Your task to perform on an android device: Go to eBay Image 0: 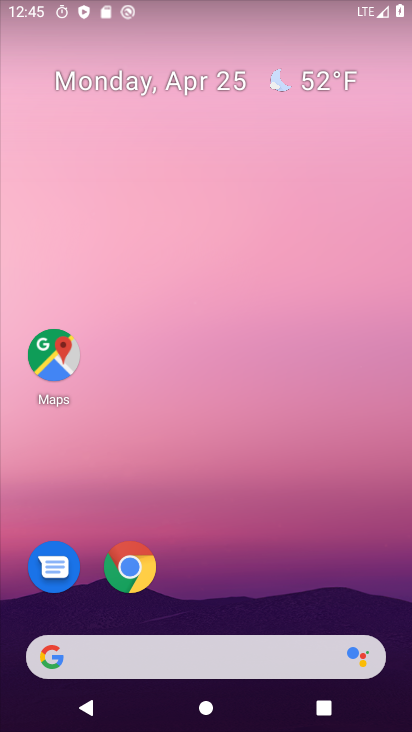
Step 0: click (277, 662)
Your task to perform on an android device: Go to eBay Image 1: 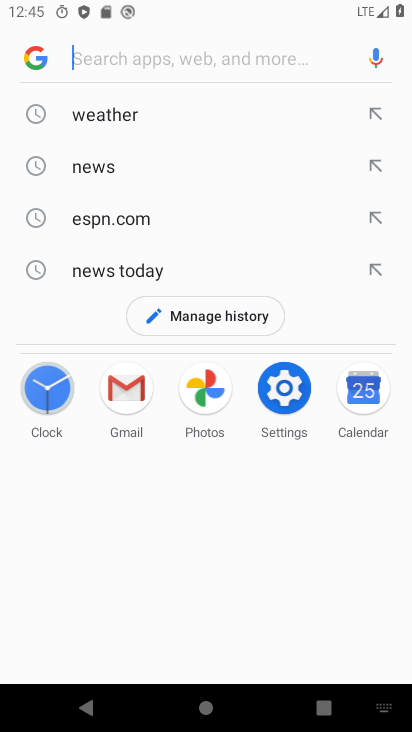
Step 1: type "ebay"
Your task to perform on an android device: Go to eBay Image 2: 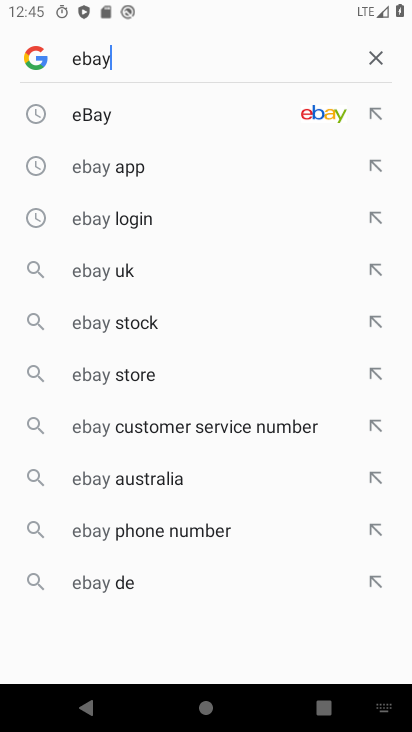
Step 2: click (323, 111)
Your task to perform on an android device: Go to eBay Image 3: 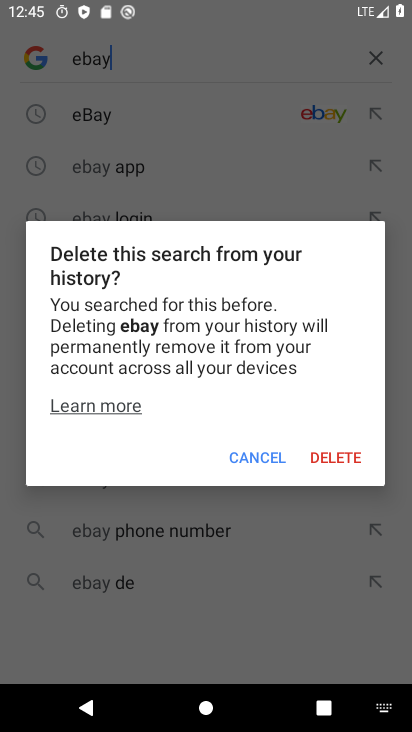
Step 3: click (262, 448)
Your task to perform on an android device: Go to eBay Image 4: 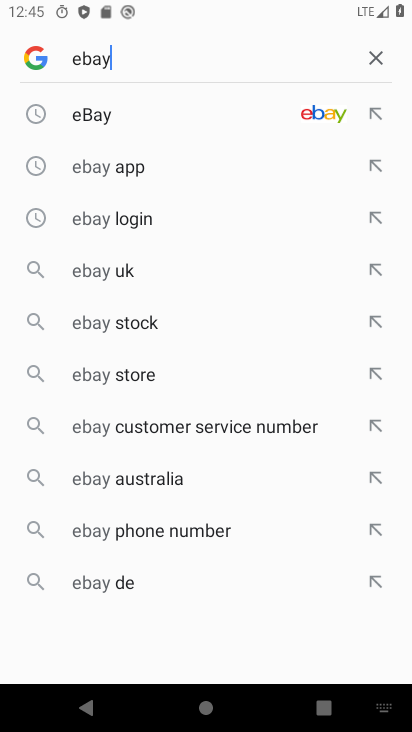
Step 4: click (319, 110)
Your task to perform on an android device: Go to eBay Image 5: 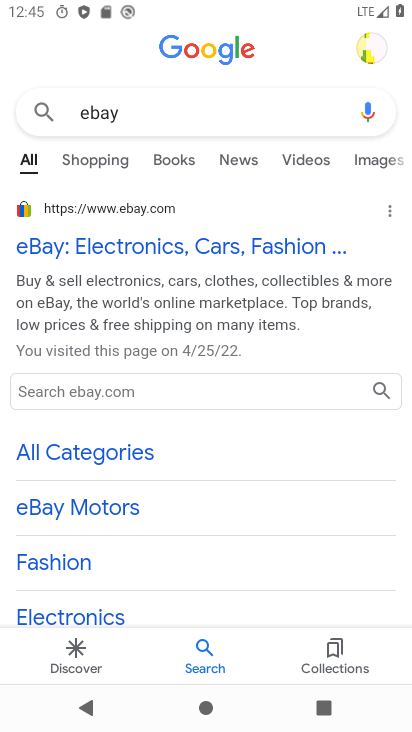
Step 5: click (139, 240)
Your task to perform on an android device: Go to eBay Image 6: 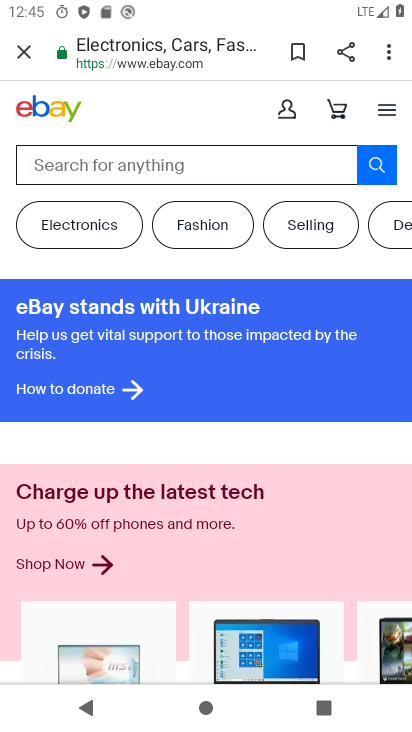
Step 6: task complete